Your task to perform on an android device: Go to network settings Image 0: 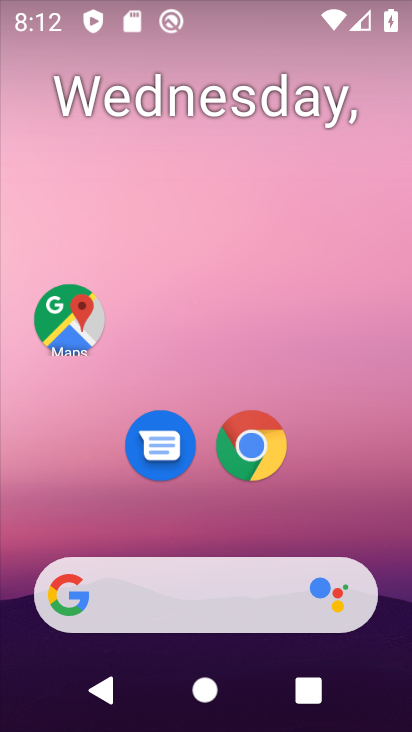
Step 0: drag from (241, 681) to (236, 82)
Your task to perform on an android device: Go to network settings Image 1: 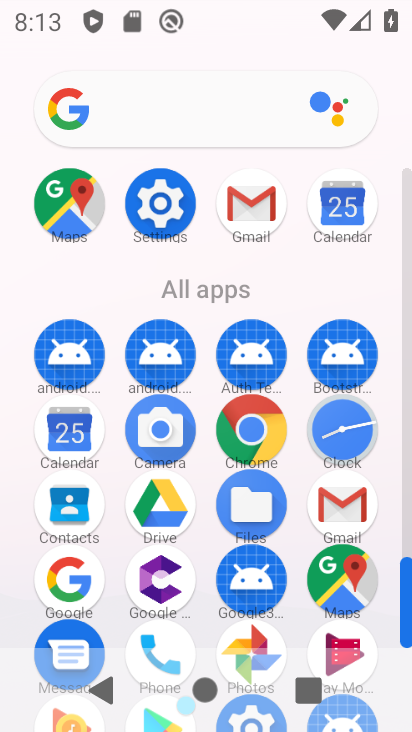
Step 1: click (159, 197)
Your task to perform on an android device: Go to network settings Image 2: 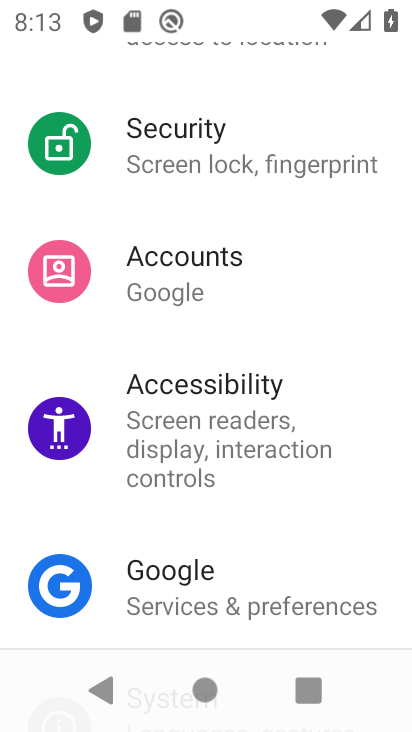
Step 2: drag from (202, 239) to (194, 561)
Your task to perform on an android device: Go to network settings Image 3: 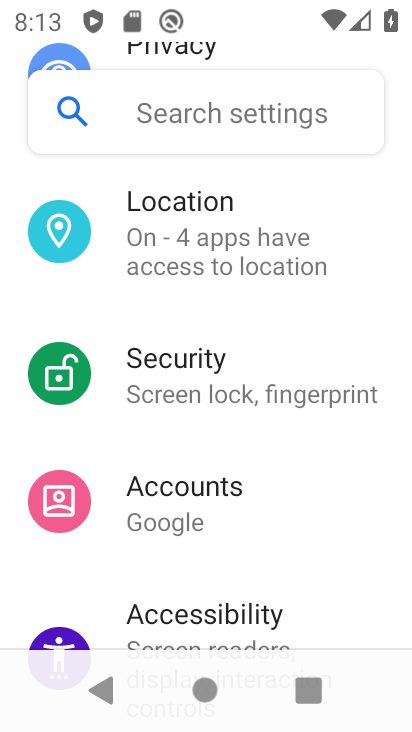
Step 3: drag from (188, 209) to (203, 527)
Your task to perform on an android device: Go to network settings Image 4: 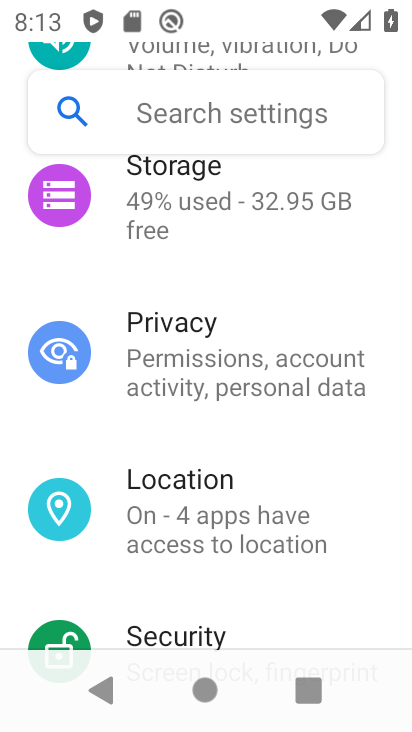
Step 4: drag from (176, 275) to (171, 587)
Your task to perform on an android device: Go to network settings Image 5: 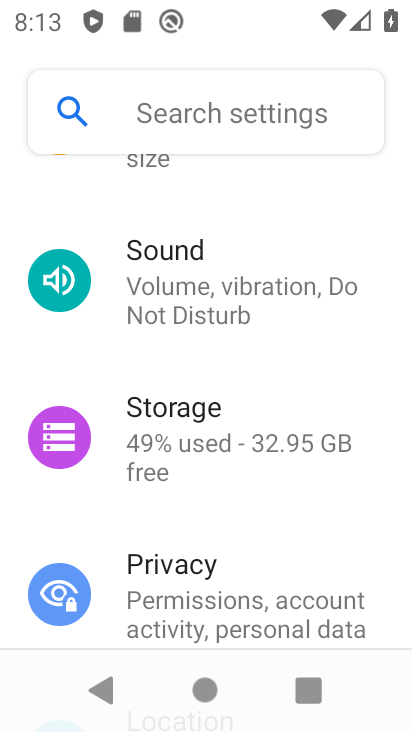
Step 5: drag from (203, 203) to (198, 643)
Your task to perform on an android device: Go to network settings Image 6: 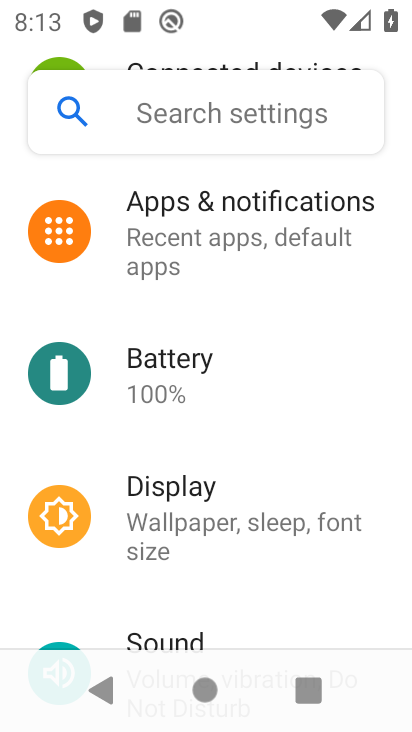
Step 6: drag from (220, 191) to (219, 564)
Your task to perform on an android device: Go to network settings Image 7: 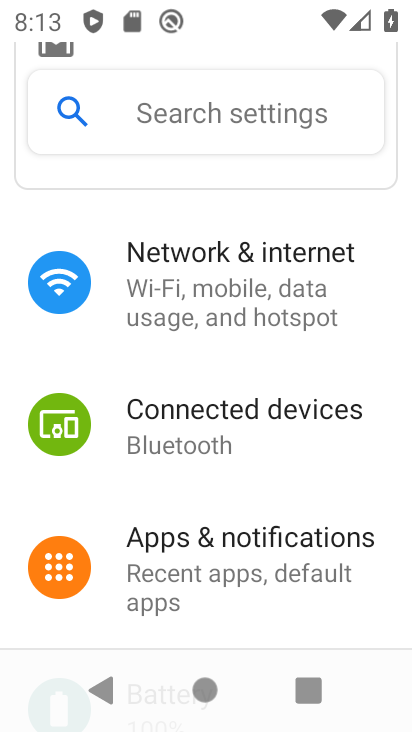
Step 7: click (177, 279)
Your task to perform on an android device: Go to network settings Image 8: 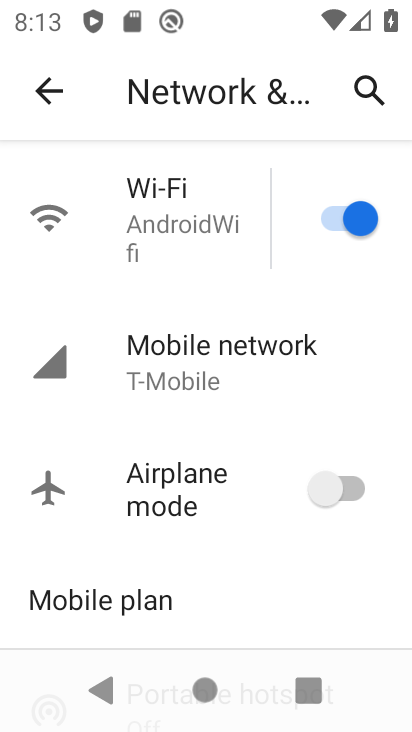
Step 8: click (185, 354)
Your task to perform on an android device: Go to network settings Image 9: 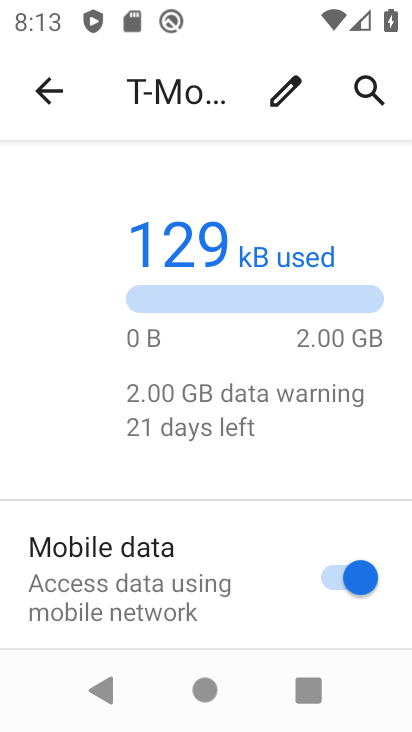
Step 9: task complete